Your task to perform on an android device: check storage Image 0: 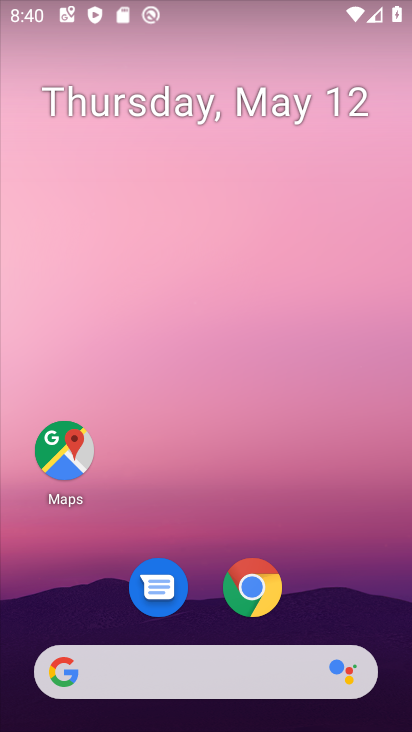
Step 0: drag from (329, 613) to (346, 271)
Your task to perform on an android device: check storage Image 1: 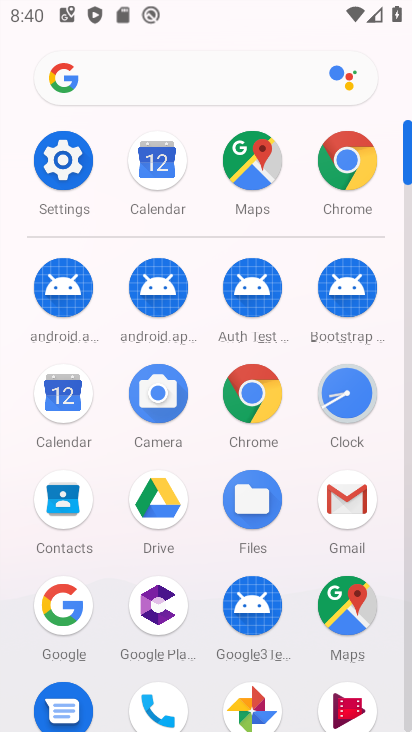
Step 1: click (60, 150)
Your task to perform on an android device: check storage Image 2: 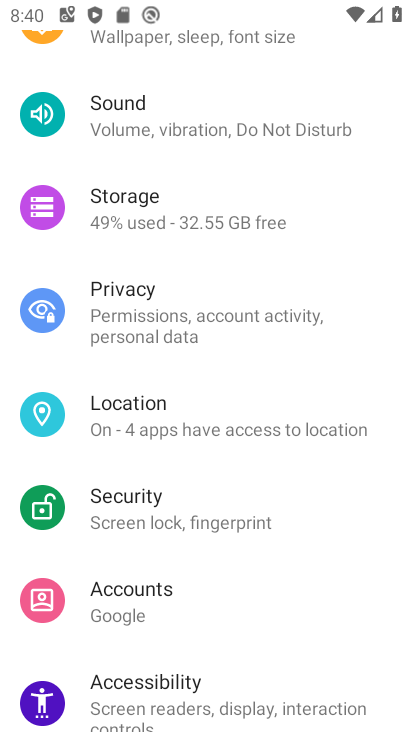
Step 2: click (139, 196)
Your task to perform on an android device: check storage Image 3: 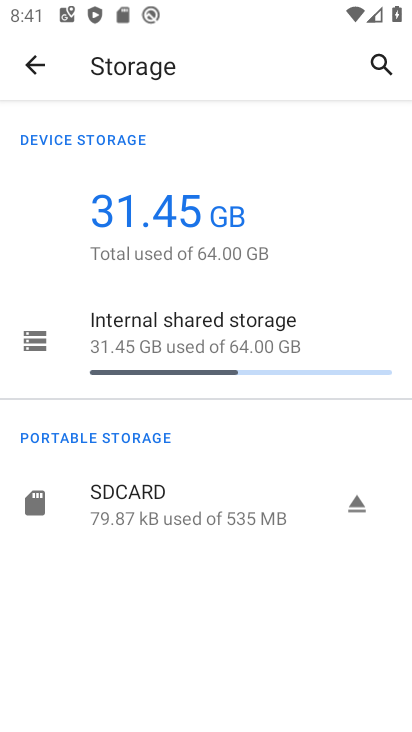
Step 3: task complete